Your task to perform on an android device: What's the weather today? Image 0: 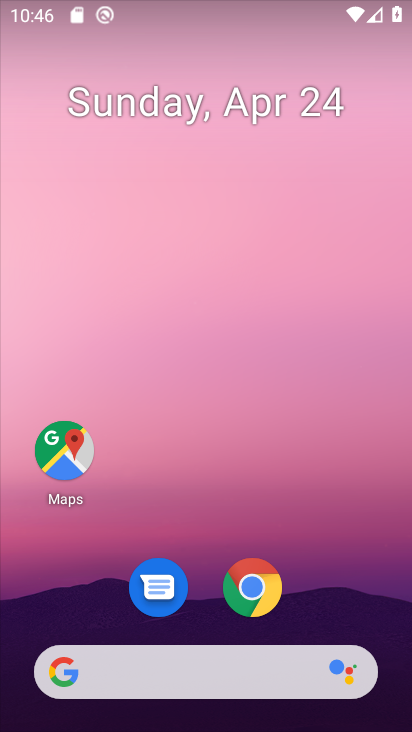
Step 0: drag from (361, 234) to (346, 120)
Your task to perform on an android device: What's the weather today? Image 1: 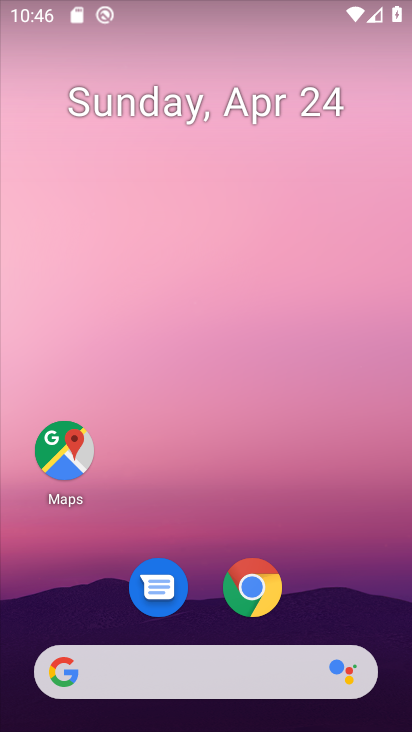
Step 1: click (346, 120)
Your task to perform on an android device: What's the weather today? Image 2: 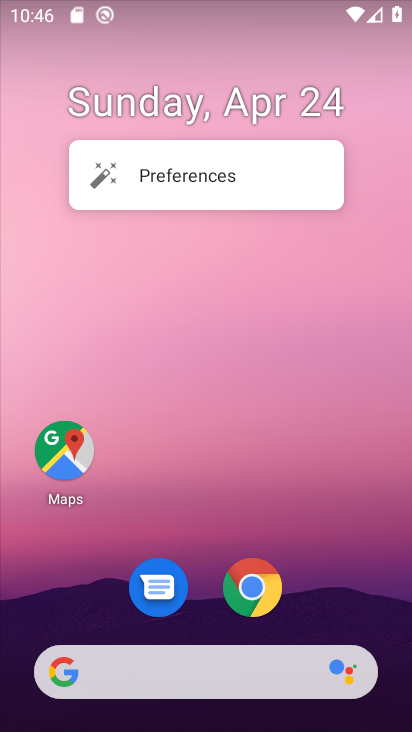
Step 2: drag from (358, 464) to (291, 57)
Your task to perform on an android device: What's the weather today? Image 3: 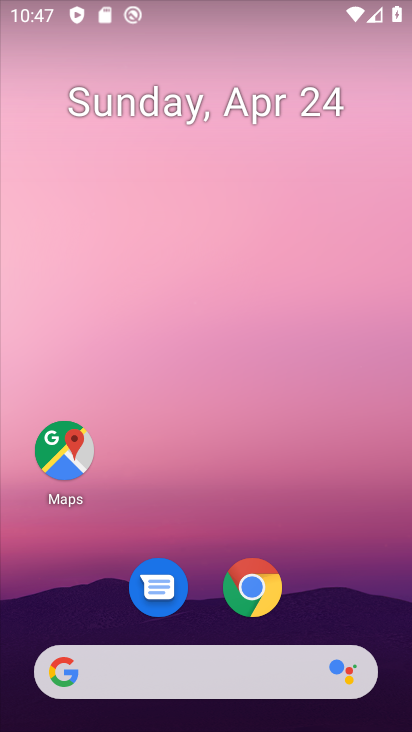
Step 3: drag from (359, 542) to (276, 119)
Your task to perform on an android device: What's the weather today? Image 4: 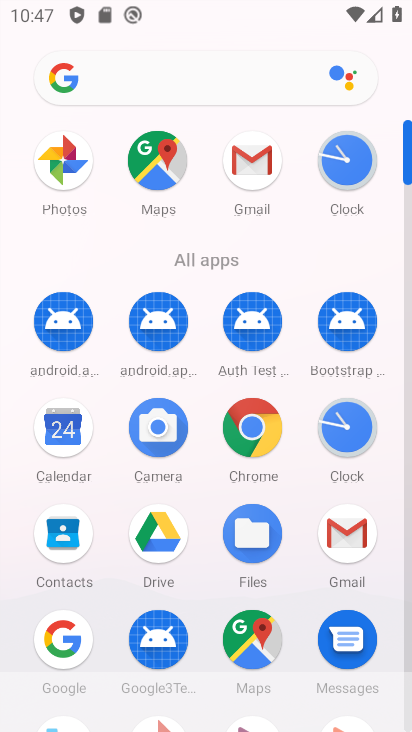
Step 4: click (62, 638)
Your task to perform on an android device: What's the weather today? Image 5: 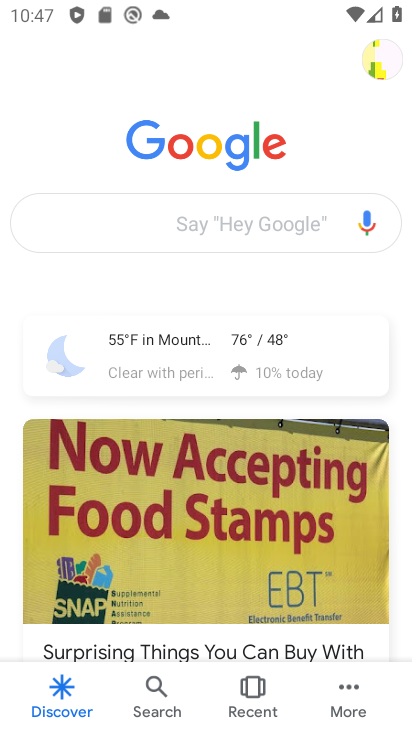
Step 5: click (193, 359)
Your task to perform on an android device: What's the weather today? Image 6: 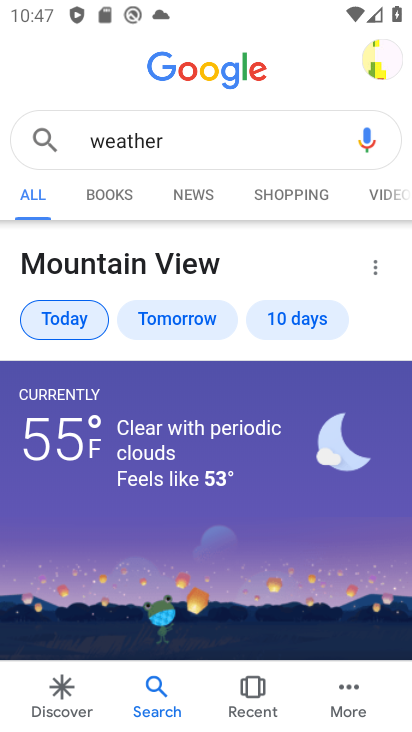
Step 6: task complete